Your task to perform on an android device: allow notifications from all sites in the chrome app Image 0: 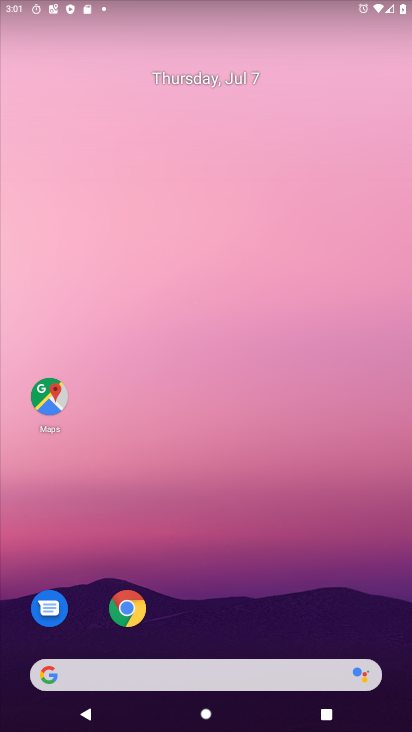
Step 0: click (125, 613)
Your task to perform on an android device: allow notifications from all sites in the chrome app Image 1: 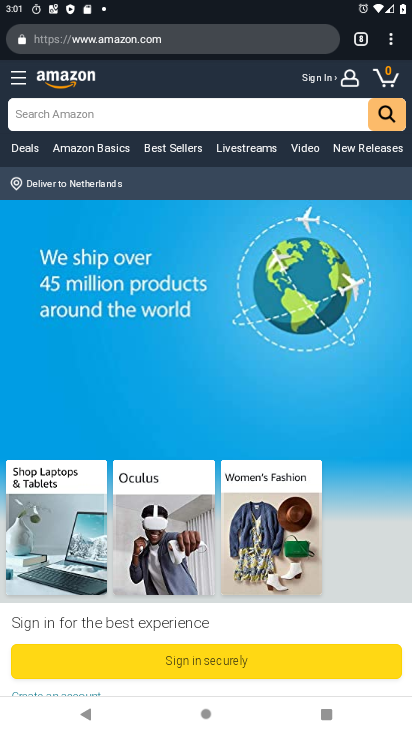
Step 1: click (391, 42)
Your task to perform on an android device: allow notifications from all sites in the chrome app Image 2: 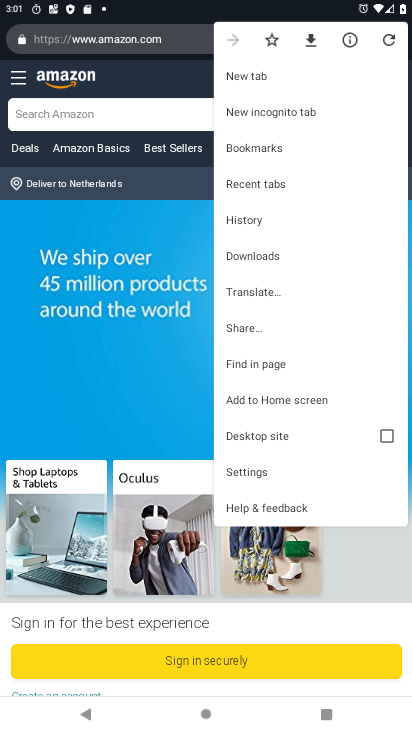
Step 2: click (250, 469)
Your task to perform on an android device: allow notifications from all sites in the chrome app Image 3: 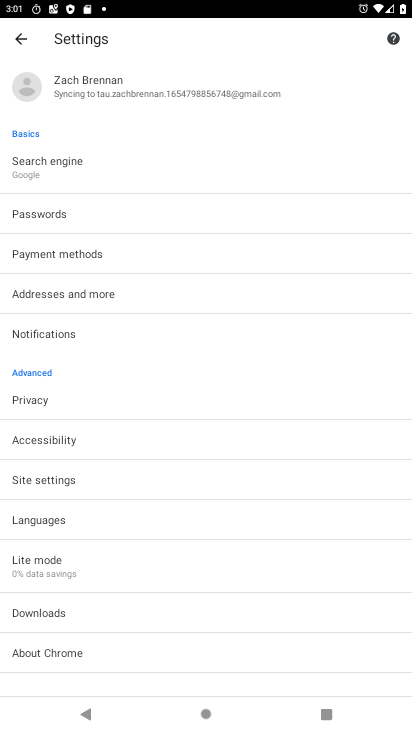
Step 3: click (43, 482)
Your task to perform on an android device: allow notifications from all sites in the chrome app Image 4: 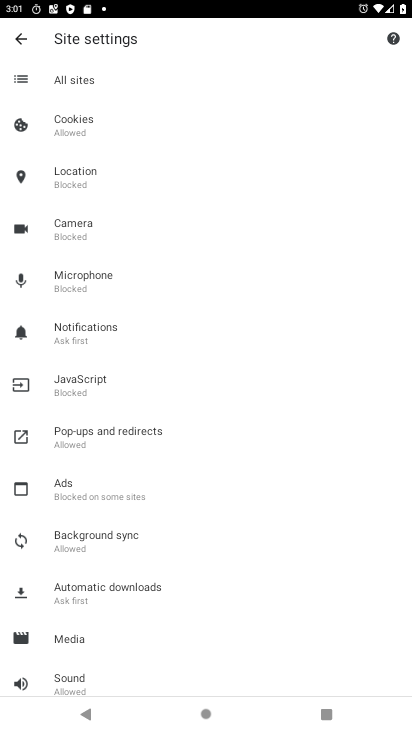
Step 4: click (84, 324)
Your task to perform on an android device: allow notifications from all sites in the chrome app Image 5: 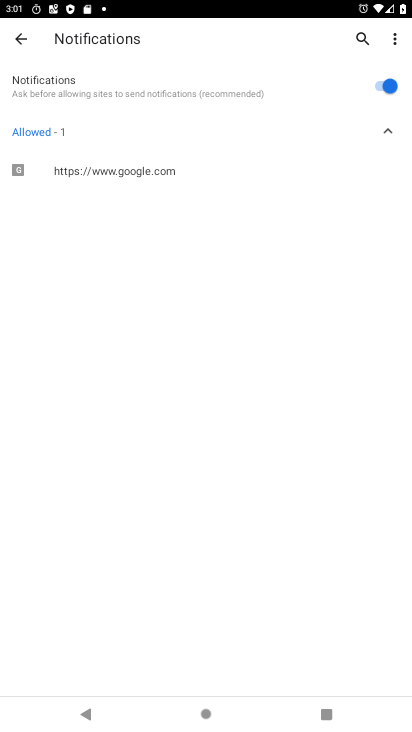
Step 5: task complete